Your task to perform on an android device: delete the emails in spam in the gmail app Image 0: 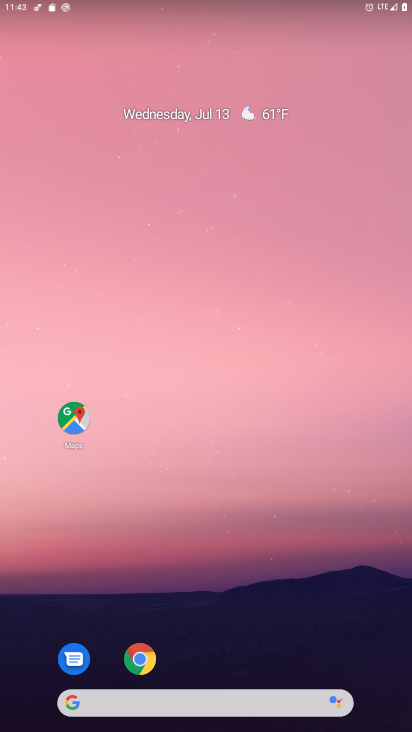
Step 0: press home button
Your task to perform on an android device: delete the emails in spam in the gmail app Image 1: 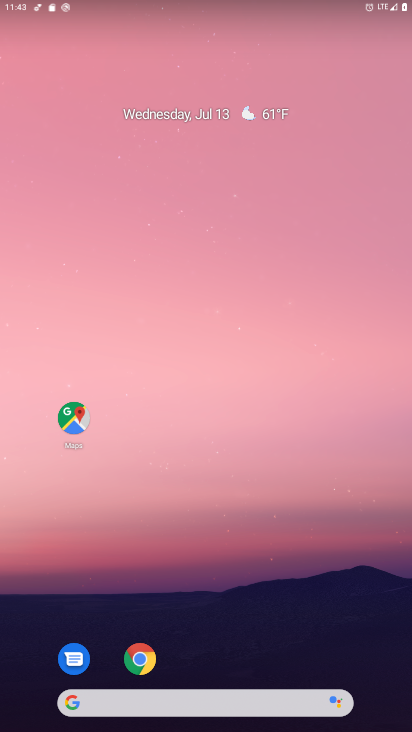
Step 1: drag from (208, 672) to (193, 5)
Your task to perform on an android device: delete the emails in spam in the gmail app Image 2: 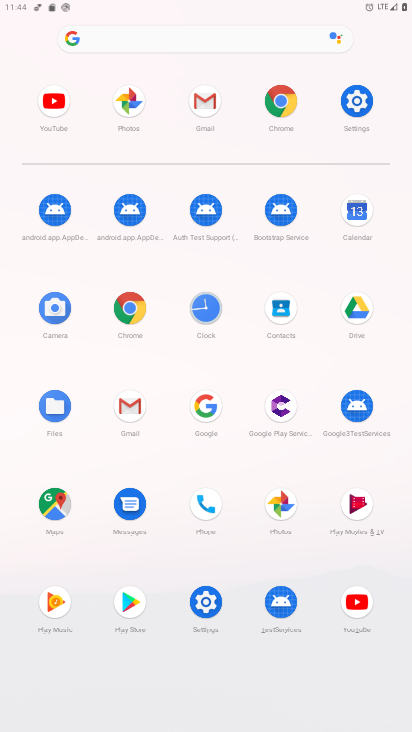
Step 2: click (205, 93)
Your task to perform on an android device: delete the emails in spam in the gmail app Image 3: 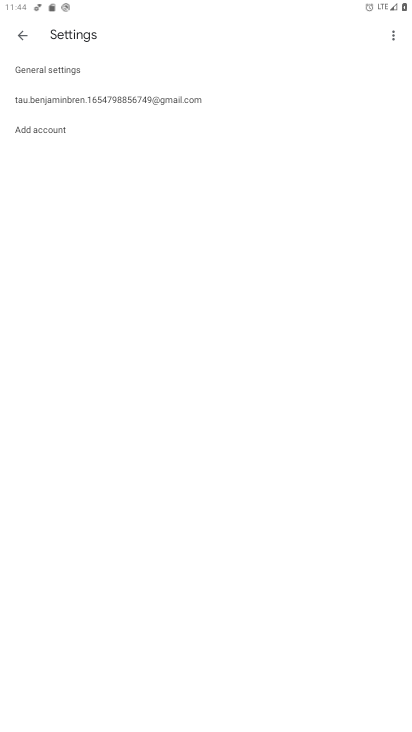
Step 3: click (22, 39)
Your task to perform on an android device: delete the emails in spam in the gmail app Image 4: 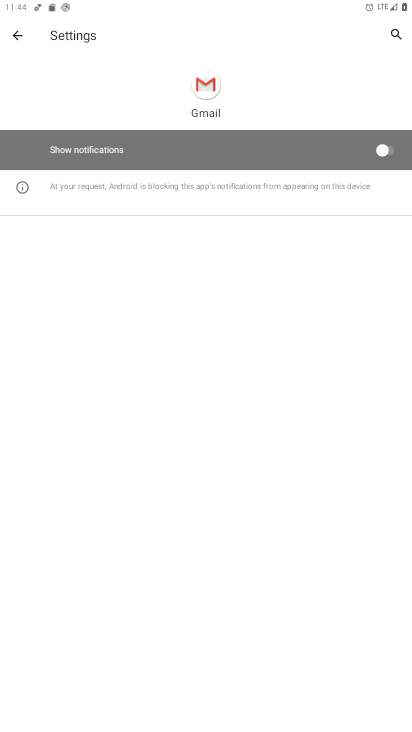
Step 4: click (19, 37)
Your task to perform on an android device: delete the emails in spam in the gmail app Image 5: 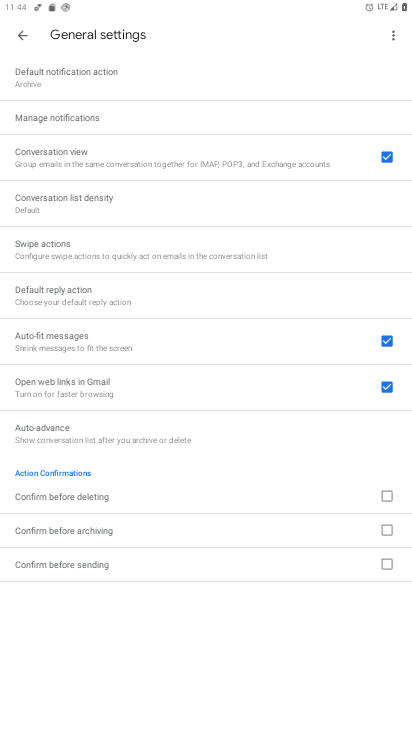
Step 5: click (19, 37)
Your task to perform on an android device: delete the emails in spam in the gmail app Image 6: 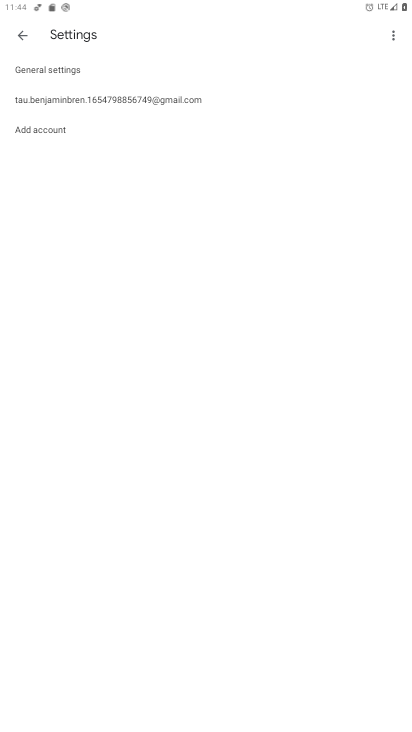
Step 6: click (26, 39)
Your task to perform on an android device: delete the emails in spam in the gmail app Image 7: 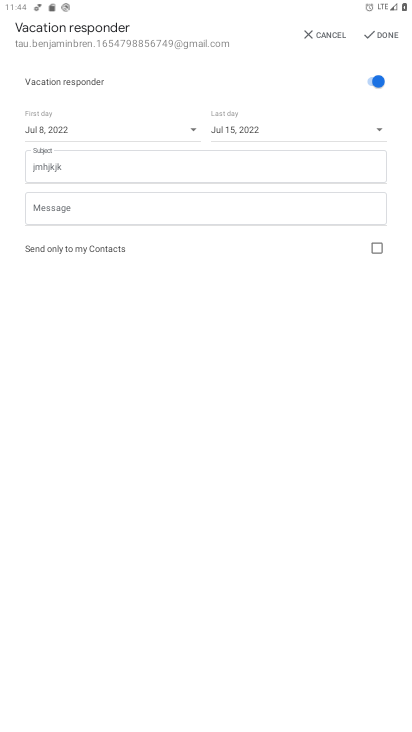
Step 7: press back button
Your task to perform on an android device: delete the emails in spam in the gmail app Image 8: 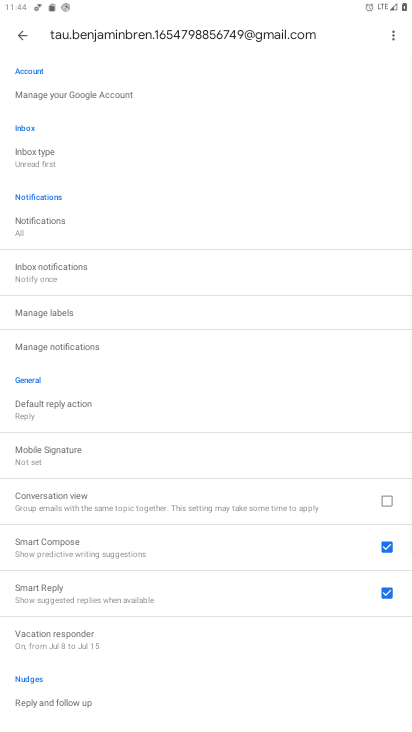
Step 8: click (25, 35)
Your task to perform on an android device: delete the emails in spam in the gmail app Image 9: 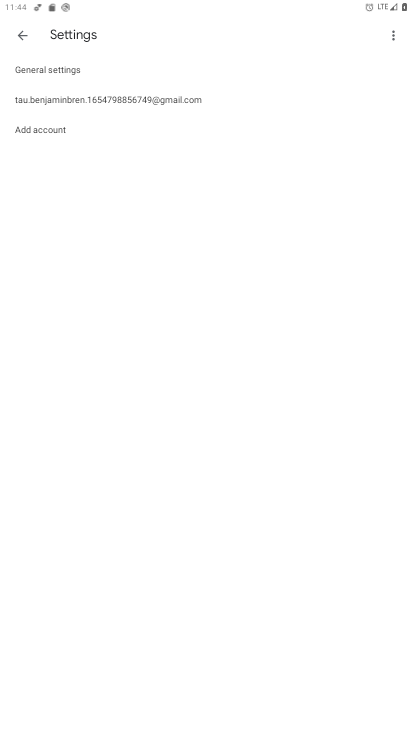
Step 9: click (25, 35)
Your task to perform on an android device: delete the emails in spam in the gmail app Image 10: 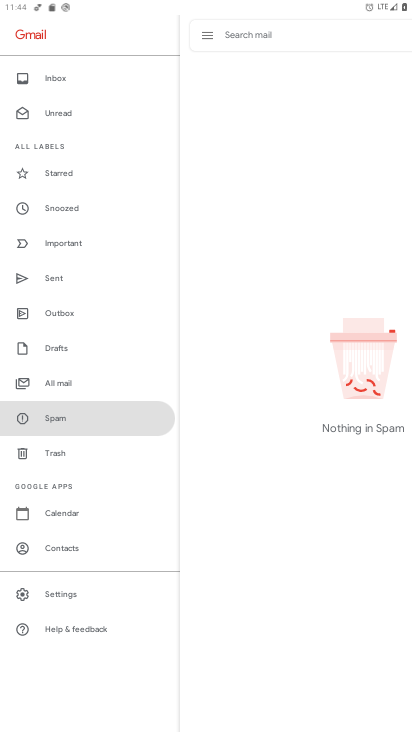
Step 10: click (67, 421)
Your task to perform on an android device: delete the emails in spam in the gmail app Image 11: 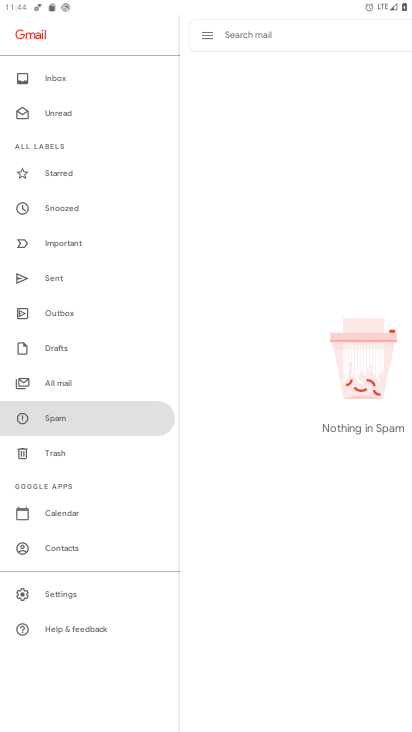
Step 11: task complete